Your task to perform on an android device: Go to eBay Image 0: 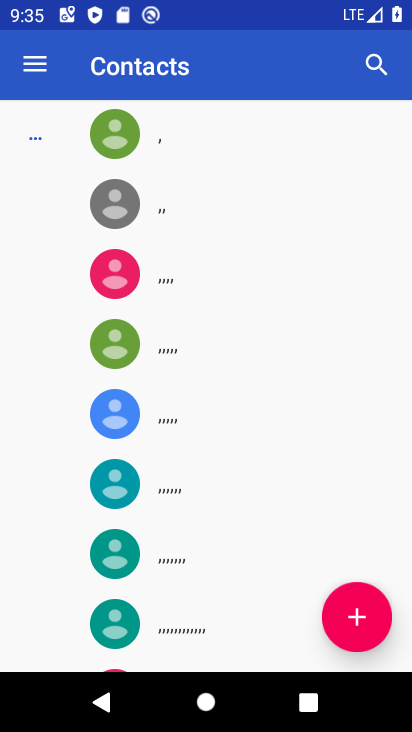
Step 0: press home button
Your task to perform on an android device: Go to eBay Image 1: 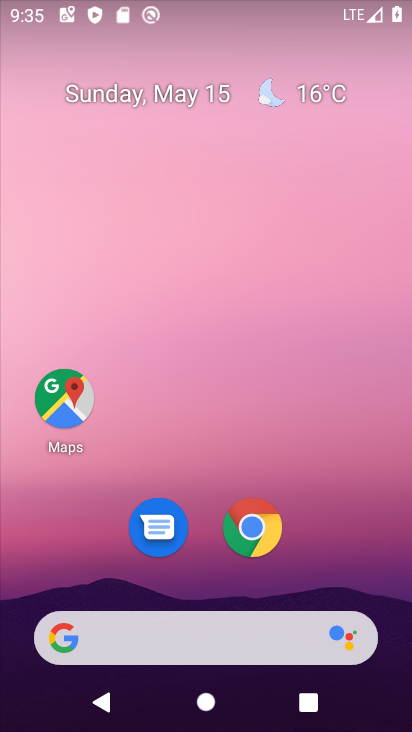
Step 1: click (255, 539)
Your task to perform on an android device: Go to eBay Image 2: 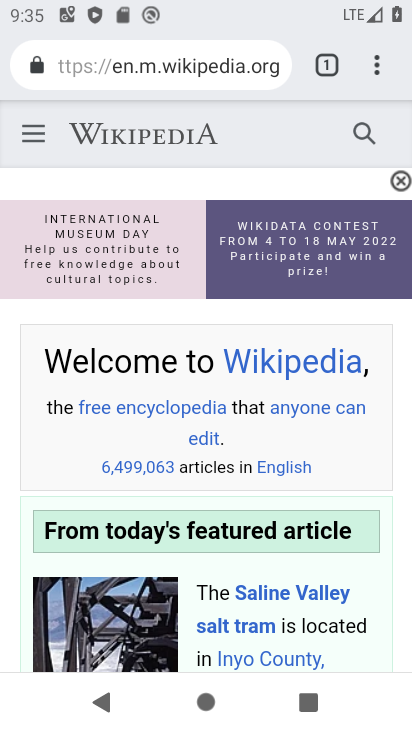
Step 2: click (110, 71)
Your task to perform on an android device: Go to eBay Image 3: 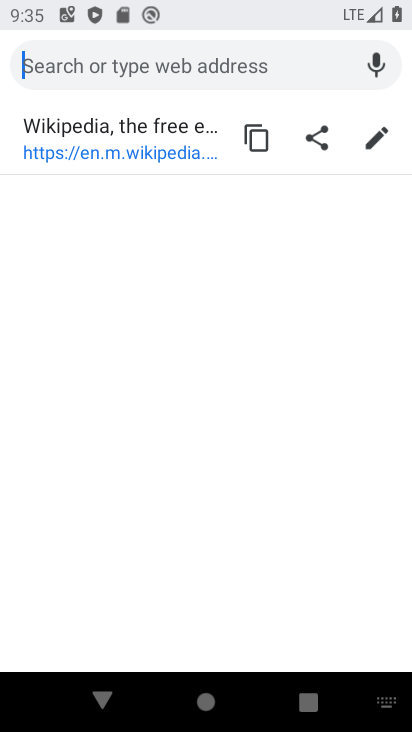
Step 3: type "ebay"
Your task to perform on an android device: Go to eBay Image 4: 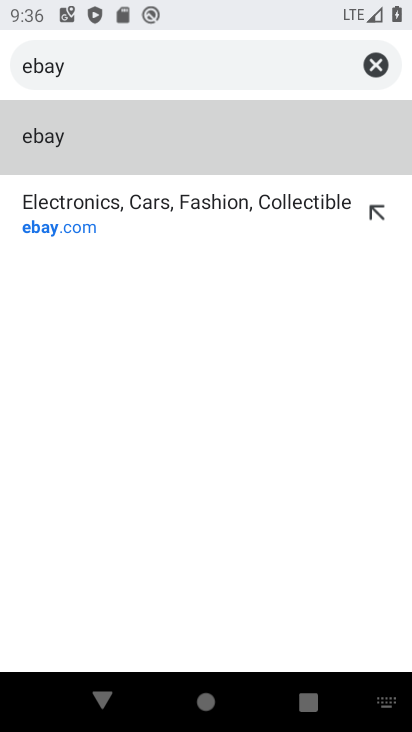
Step 4: click (60, 140)
Your task to perform on an android device: Go to eBay Image 5: 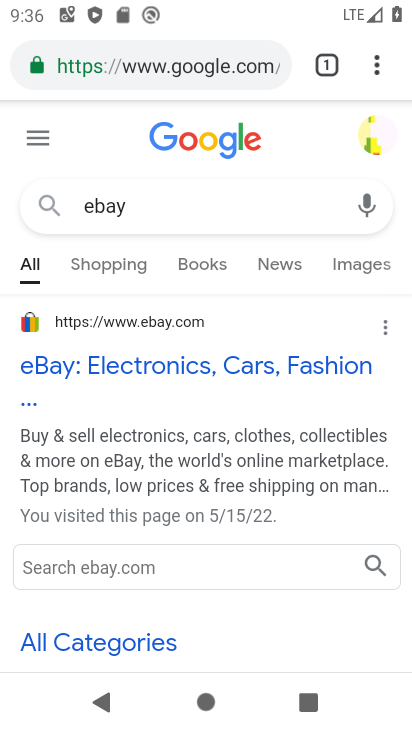
Step 5: click (64, 371)
Your task to perform on an android device: Go to eBay Image 6: 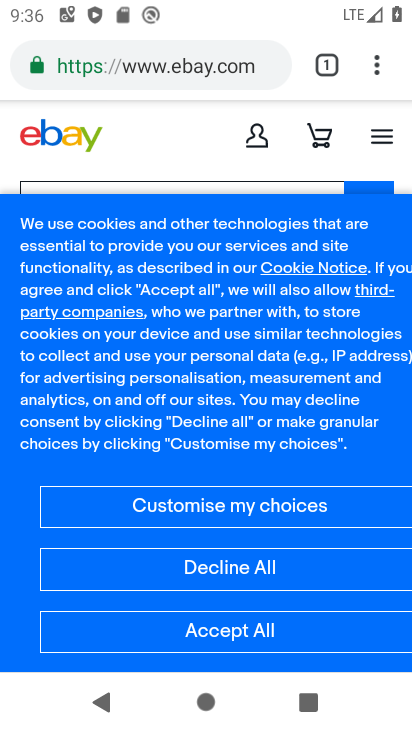
Step 6: task complete